Your task to perform on an android device: Open notification settings Image 0: 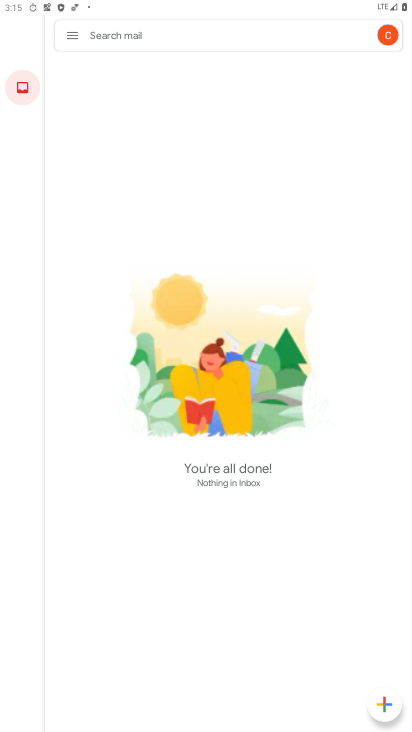
Step 0: press home button
Your task to perform on an android device: Open notification settings Image 1: 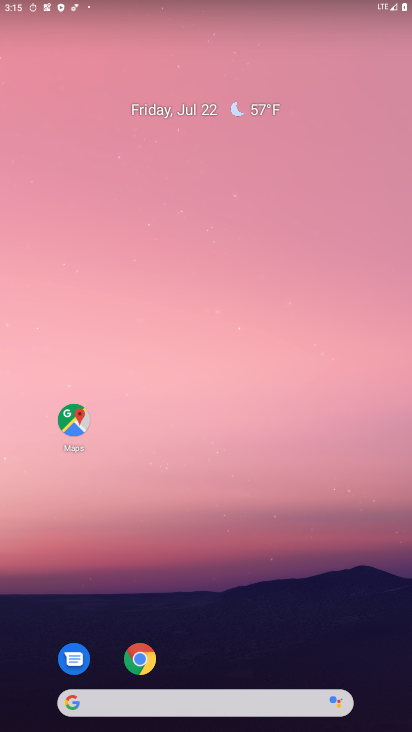
Step 1: drag from (255, 621) to (253, 172)
Your task to perform on an android device: Open notification settings Image 2: 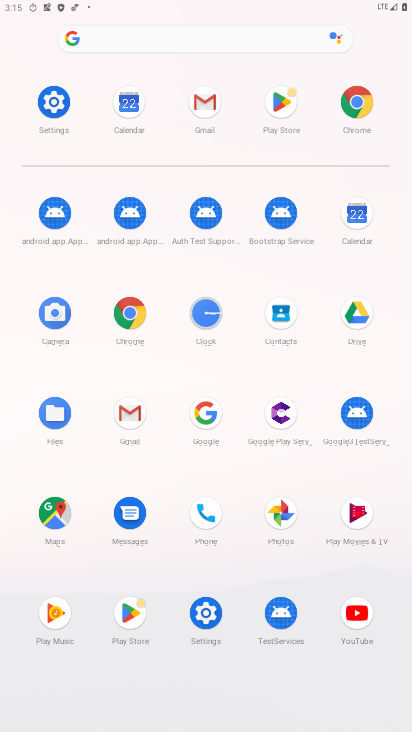
Step 2: click (59, 100)
Your task to perform on an android device: Open notification settings Image 3: 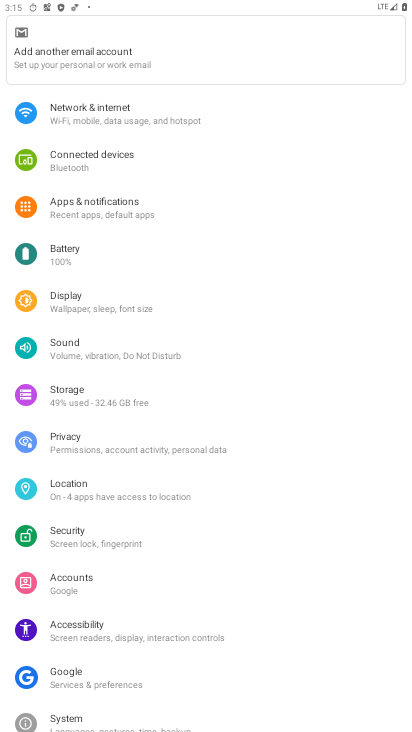
Step 3: click (106, 222)
Your task to perform on an android device: Open notification settings Image 4: 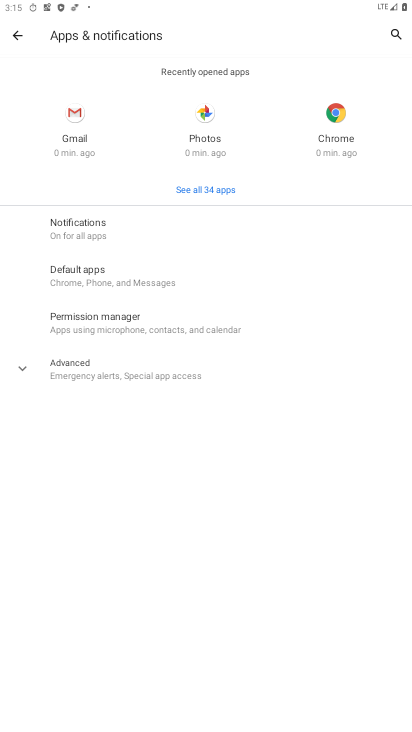
Step 4: click (102, 229)
Your task to perform on an android device: Open notification settings Image 5: 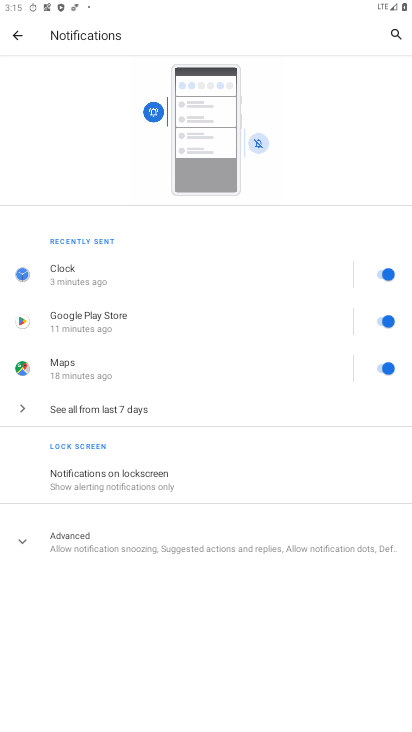
Step 5: task complete